Your task to perform on an android device: Open Amazon Image 0: 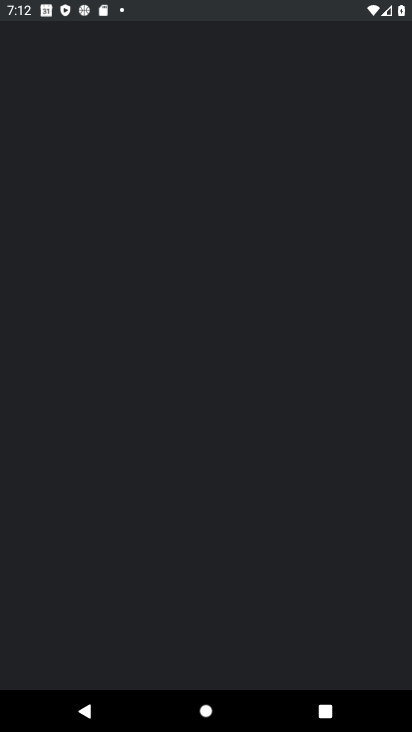
Step 0: click (126, 590)
Your task to perform on an android device: Open Amazon Image 1: 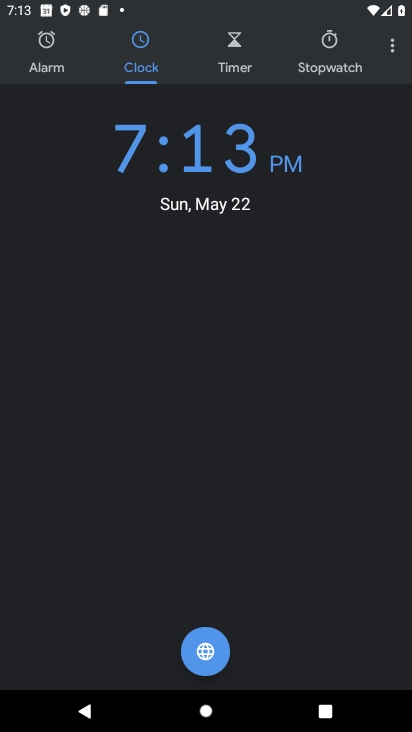
Step 1: press home button
Your task to perform on an android device: Open Amazon Image 2: 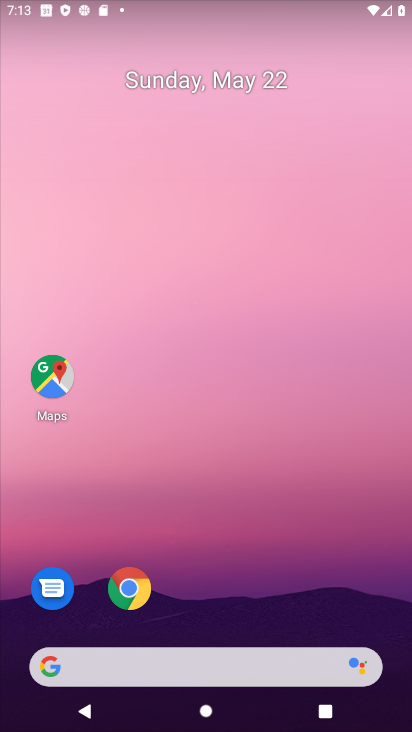
Step 2: click (129, 596)
Your task to perform on an android device: Open Amazon Image 3: 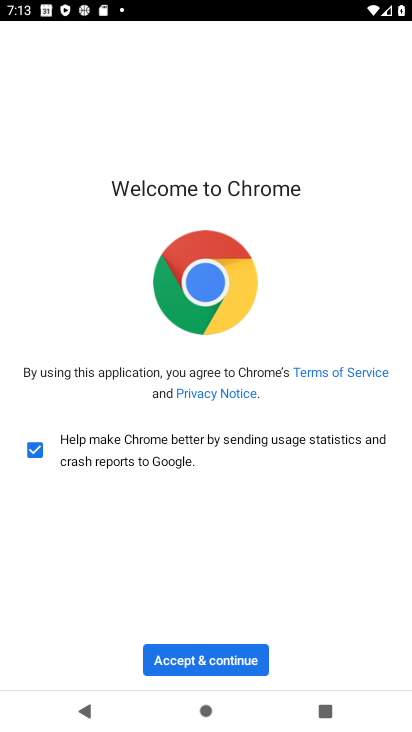
Step 3: click (236, 665)
Your task to perform on an android device: Open Amazon Image 4: 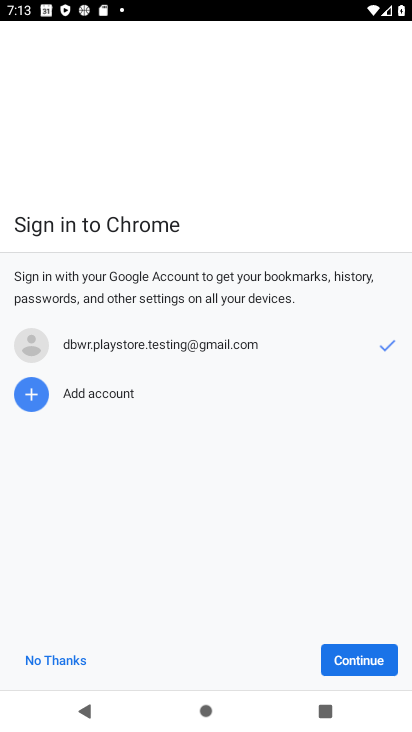
Step 4: click (363, 656)
Your task to perform on an android device: Open Amazon Image 5: 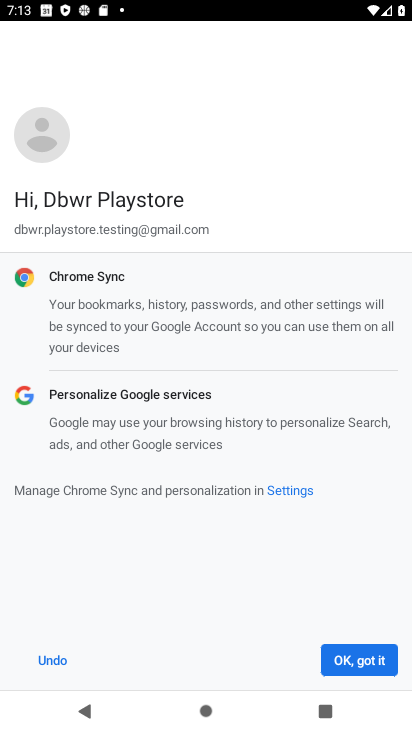
Step 5: click (347, 658)
Your task to perform on an android device: Open Amazon Image 6: 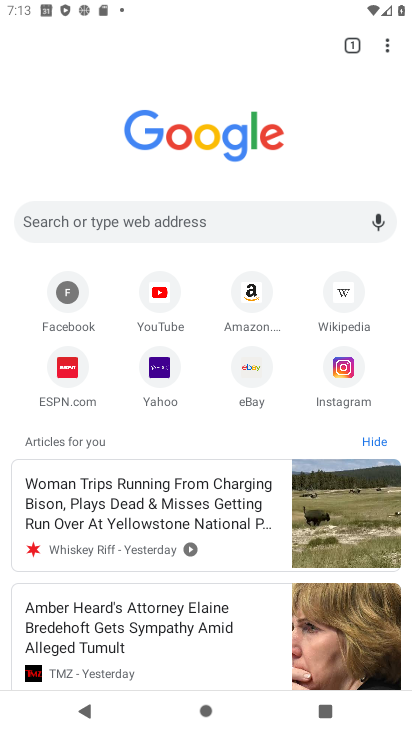
Step 6: click (249, 290)
Your task to perform on an android device: Open Amazon Image 7: 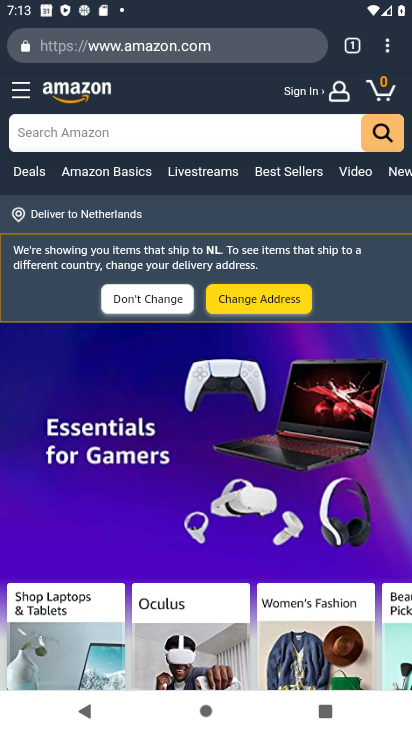
Step 7: task complete